Your task to perform on an android device: Open eBay Image 0: 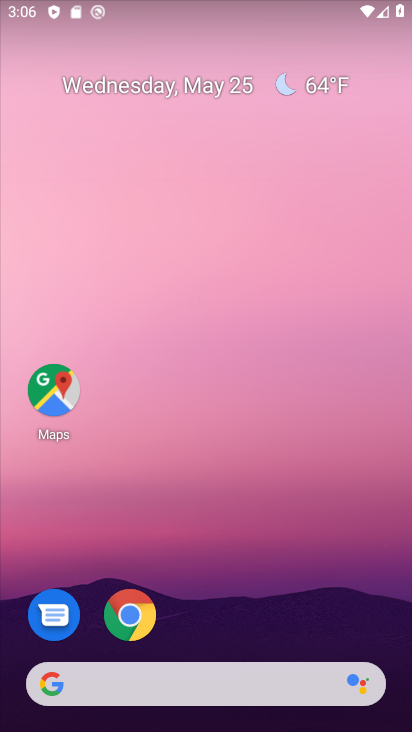
Step 0: click (141, 609)
Your task to perform on an android device: Open eBay Image 1: 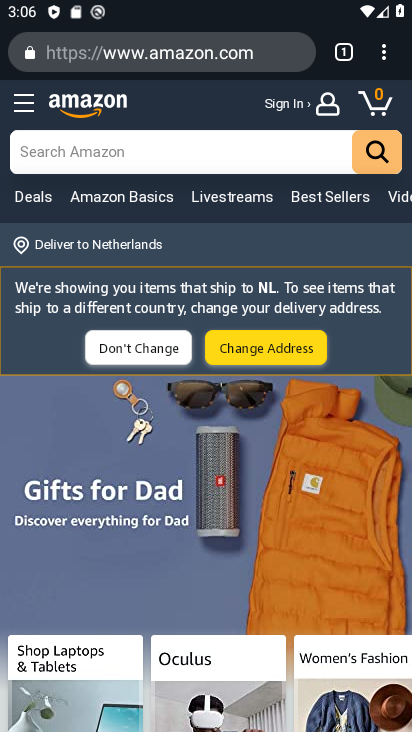
Step 1: click (344, 54)
Your task to perform on an android device: Open eBay Image 2: 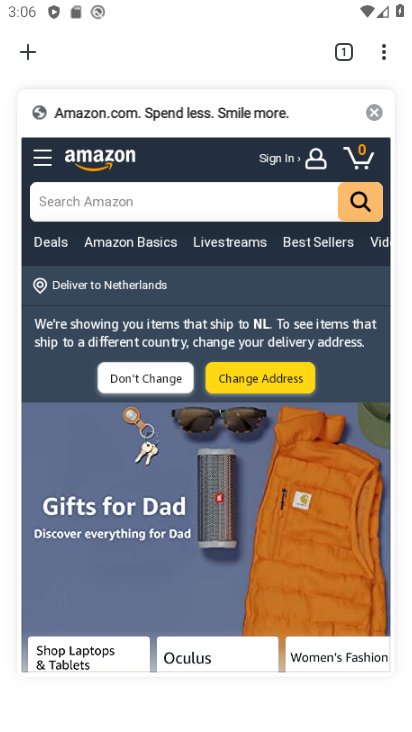
Step 2: click (371, 112)
Your task to perform on an android device: Open eBay Image 3: 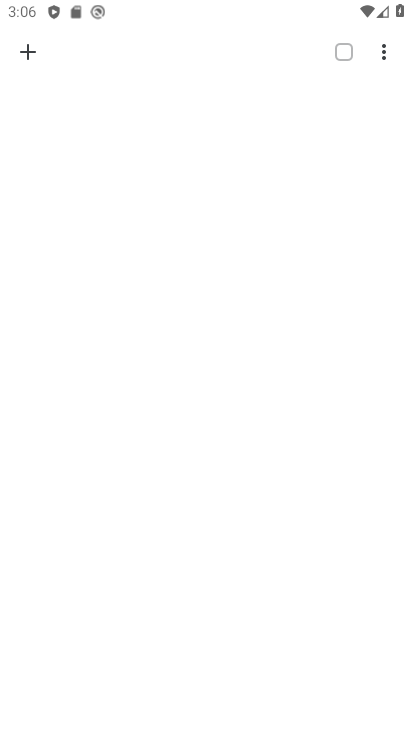
Step 3: click (24, 59)
Your task to perform on an android device: Open eBay Image 4: 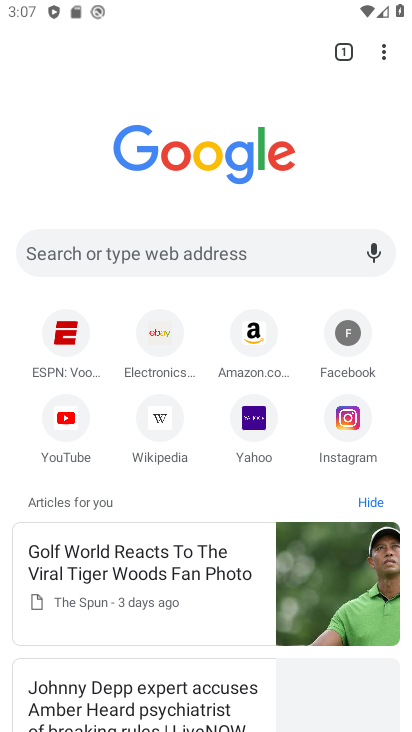
Step 4: click (164, 332)
Your task to perform on an android device: Open eBay Image 5: 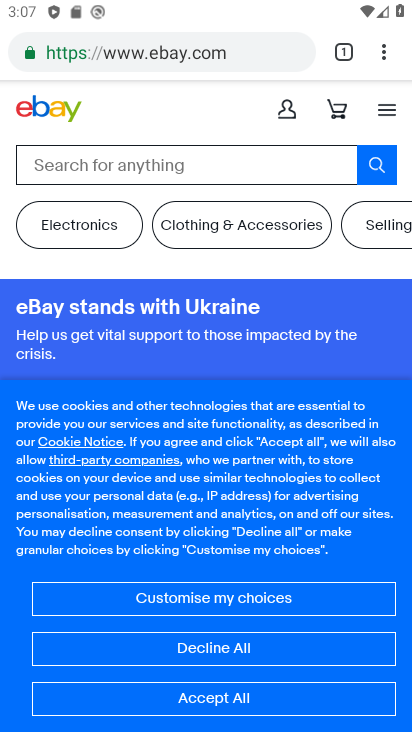
Step 5: task complete